Your task to perform on an android device: add a contact Image 0: 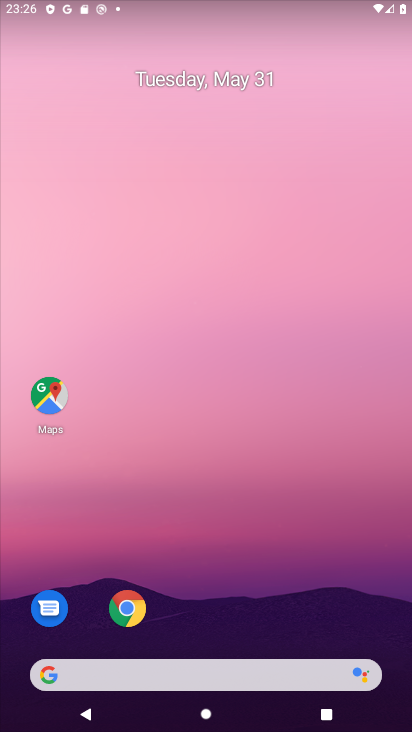
Step 0: drag from (330, 599) to (220, 106)
Your task to perform on an android device: add a contact Image 1: 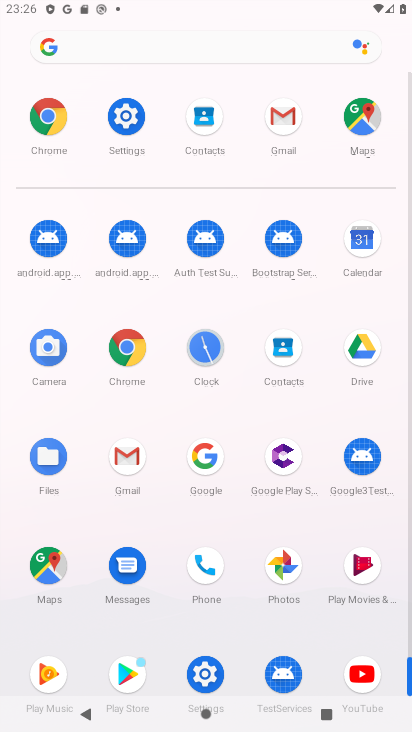
Step 1: click (195, 115)
Your task to perform on an android device: add a contact Image 2: 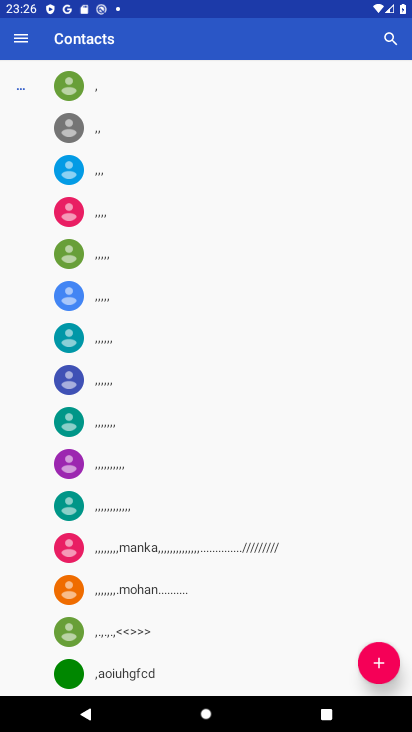
Step 2: click (391, 662)
Your task to perform on an android device: add a contact Image 3: 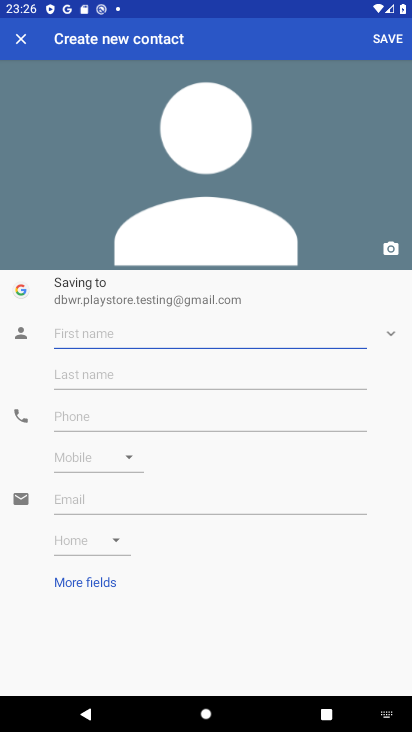
Step 3: type "wsdfghyuiop"
Your task to perform on an android device: add a contact Image 4: 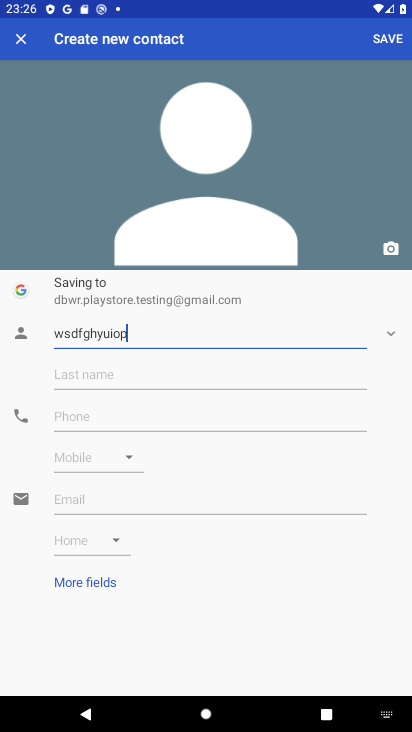
Step 4: click (98, 419)
Your task to perform on an android device: add a contact Image 5: 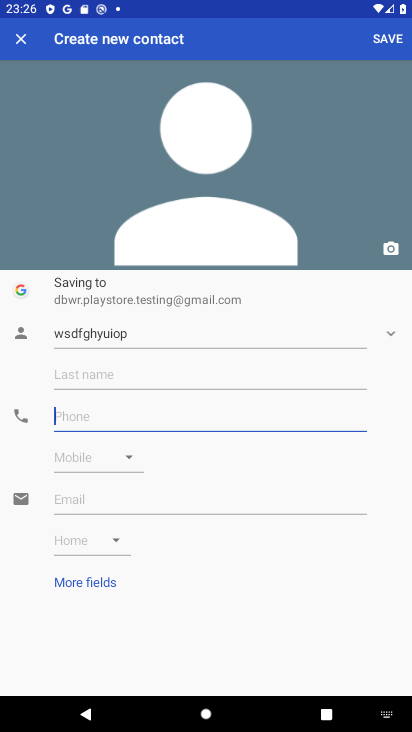
Step 5: type "8698"
Your task to perform on an android device: add a contact Image 6: 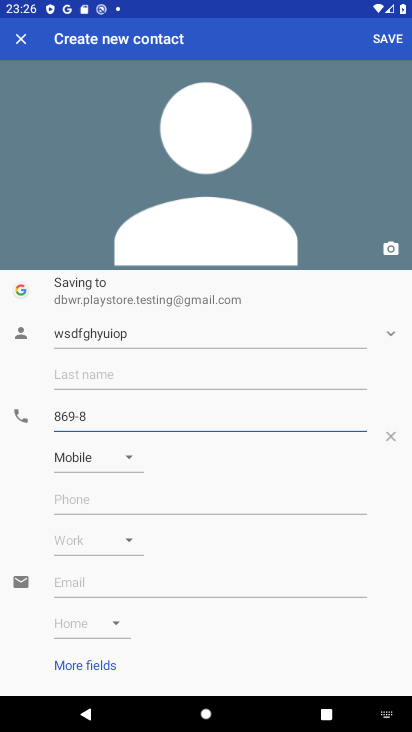
Step 6: click (386, 41)
Your task to perform on an android device: add a contact Image 7: 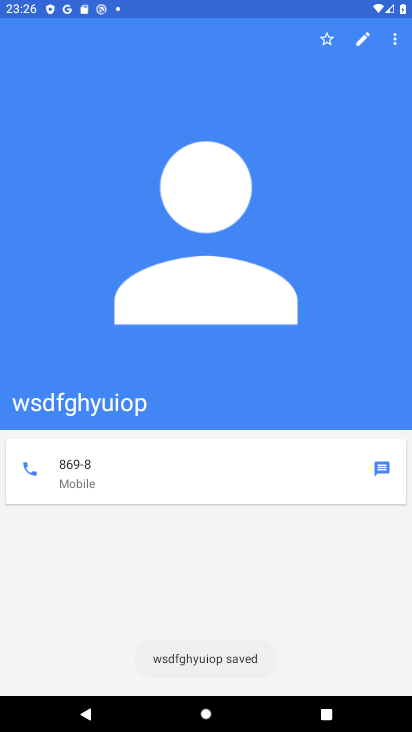
Step 7: task complete